Your task to perform on an android device: Go to internet settings Image 0: 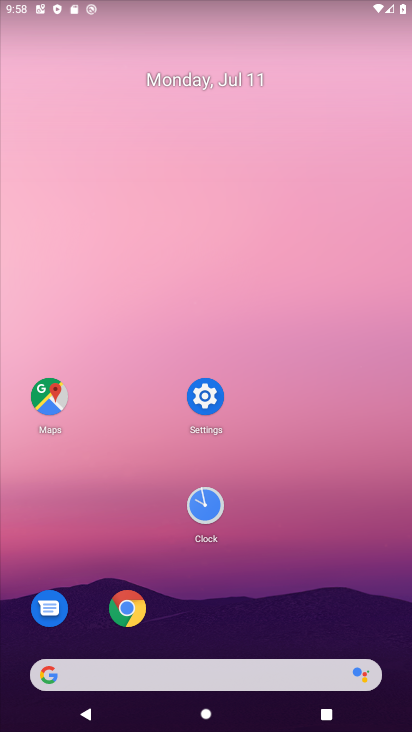
Step 0: click (211, 403)
Your task to perform on an android device: Go to internet settings Image 1: 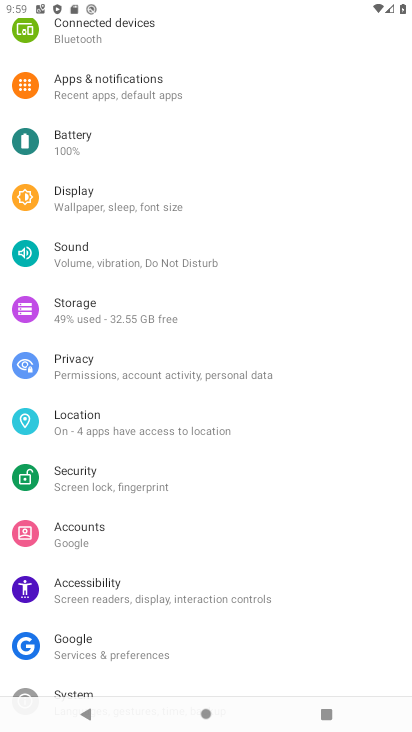
Step 1: drag from (338, 81) to (345, 492)
Your task to perform on an android device: Go to internet settings Image 2: 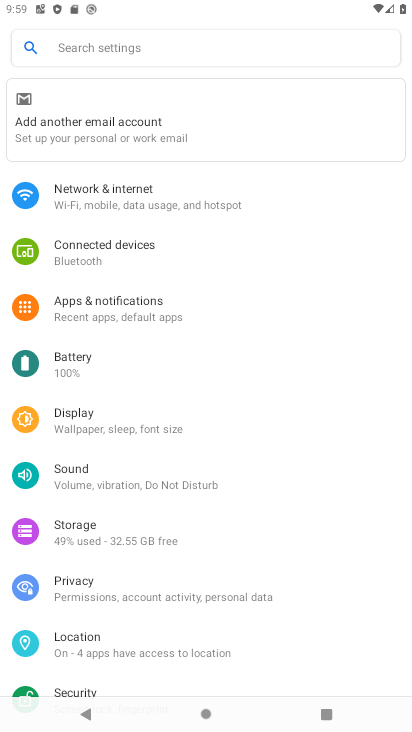
Step 2: click (133, 201)
Your task to perform on an android device: Go to internet settings Image 3: 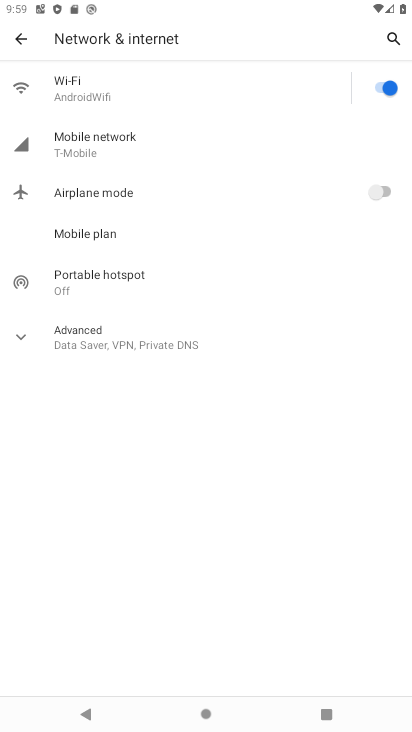
Step 3: click (76, 148)
Your task to perform on an android device: Go to internet settings Image 4: 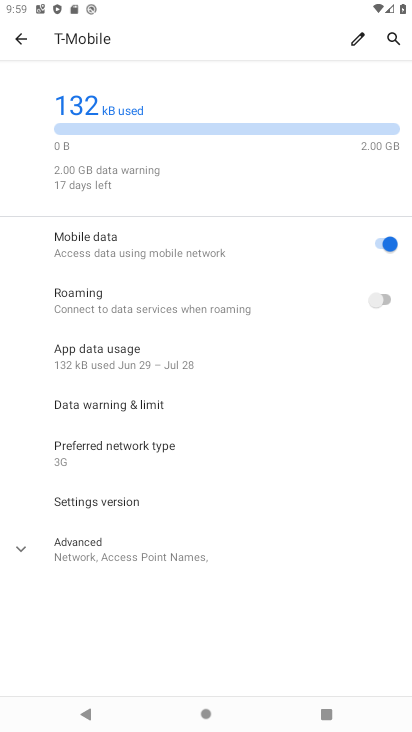
Step 4: task complete